Your task to perform on an android device: set the timer Image 0: 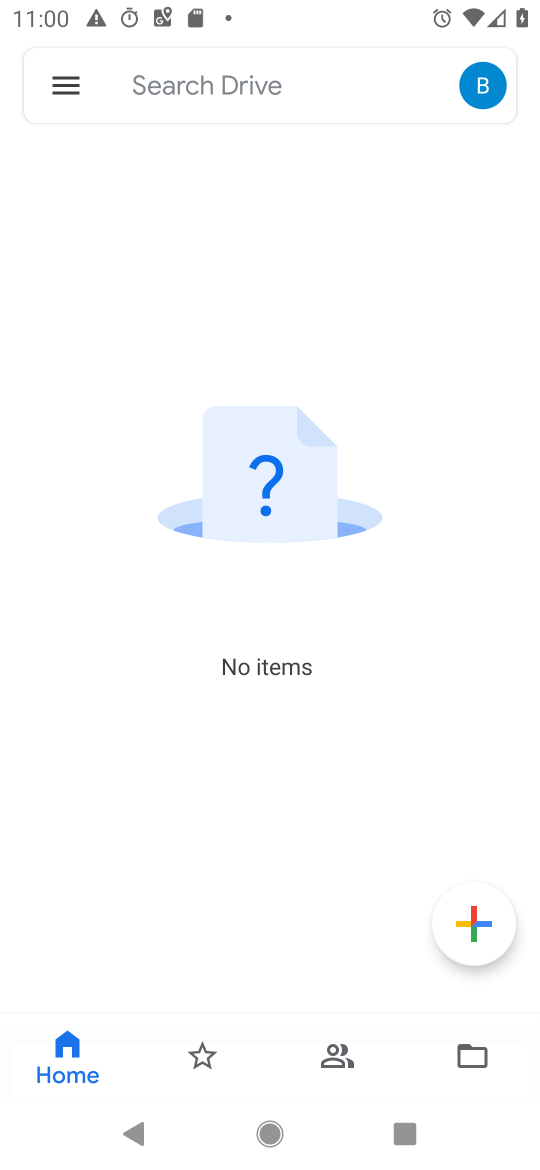
Step 0: press home button
Your task to perform on an android device: set the timer Image 1: 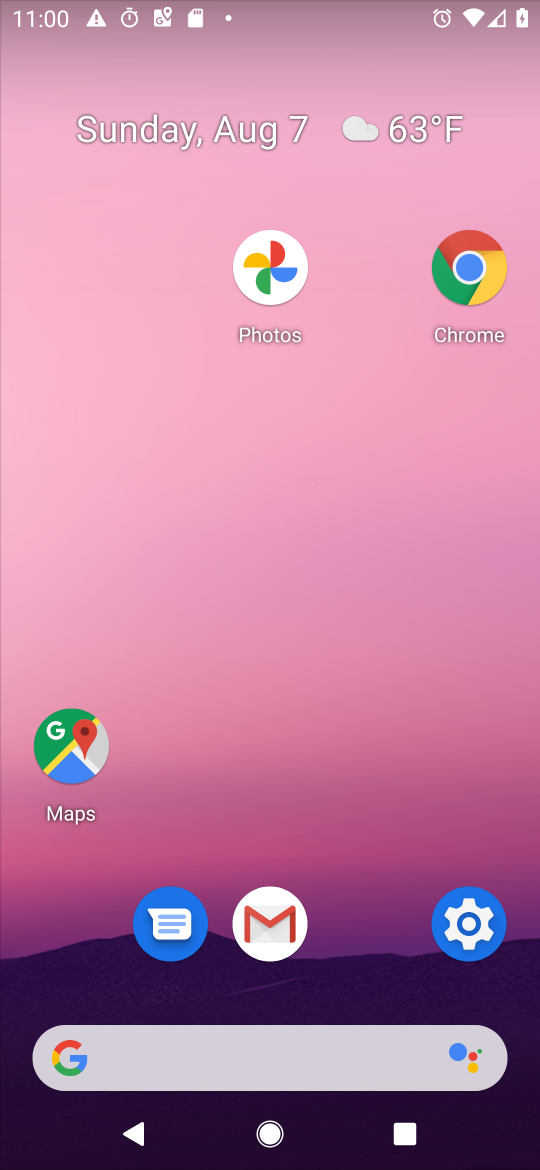
Step 1: click (464, 915)
Your task to perform on an android device: set the timer Image 2: 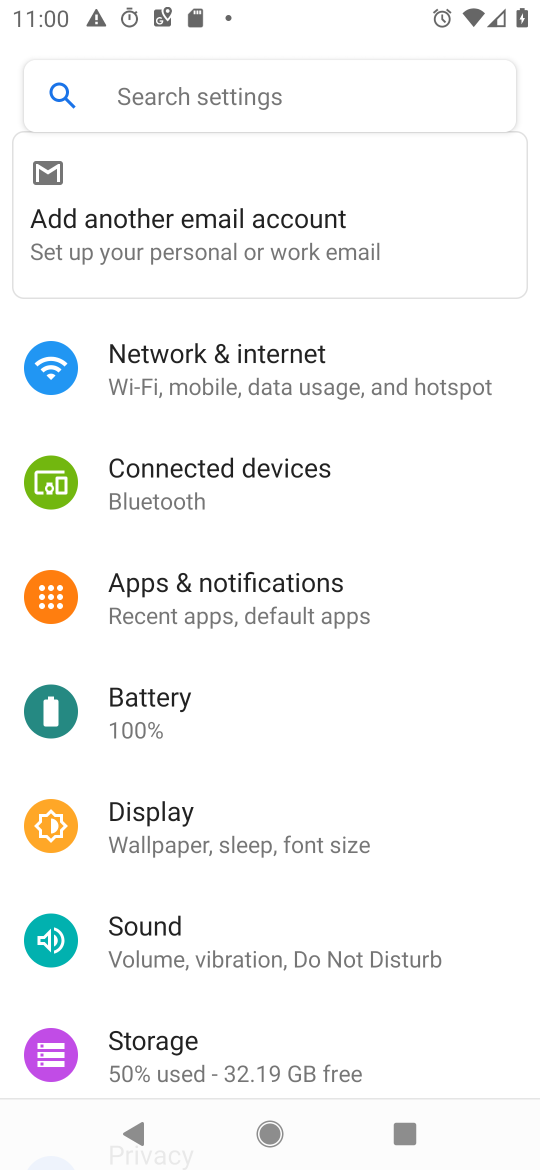
Step 2: press home button
Your task to perform on an android device: set the timer Image 3: 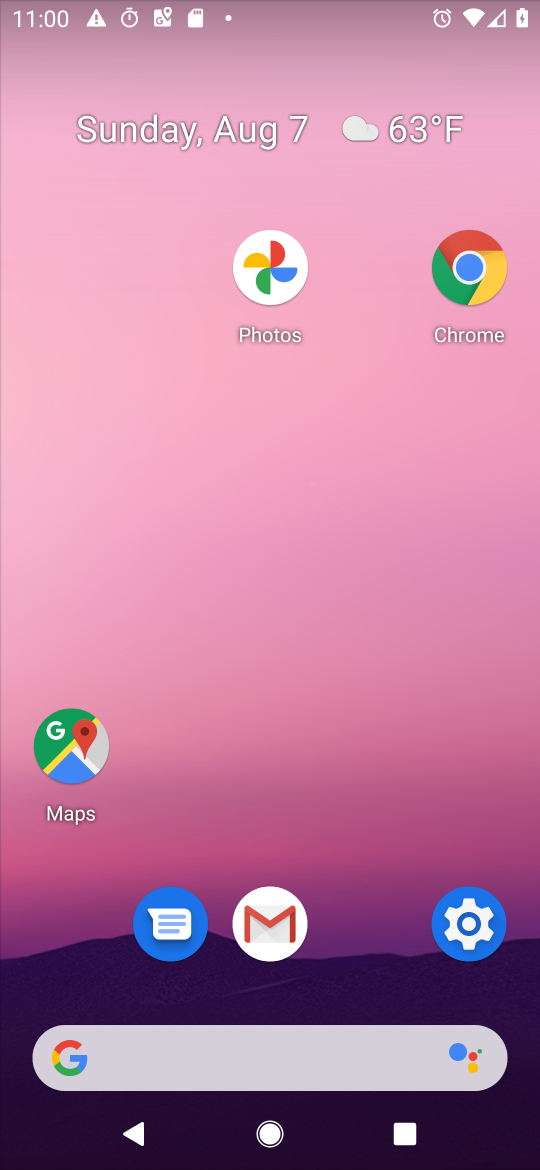
Step 3: drag from (310, 1094) to (265, 455)
Your task to perform on an android device: set the timer Image 4: 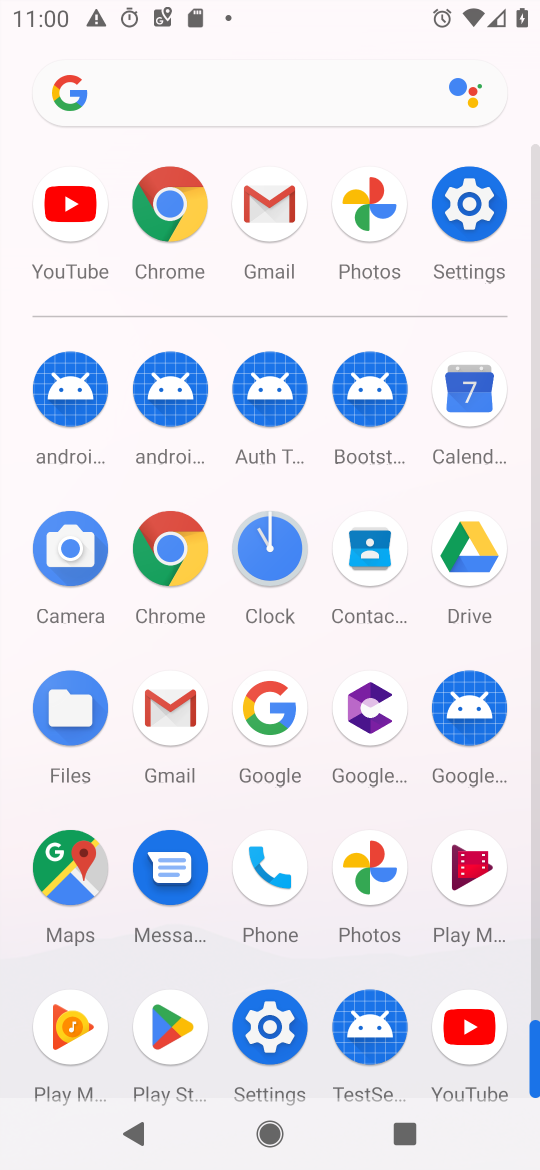
Step 4: click (261, 555)
Your task to perform on an android device: set the timer Image 5: 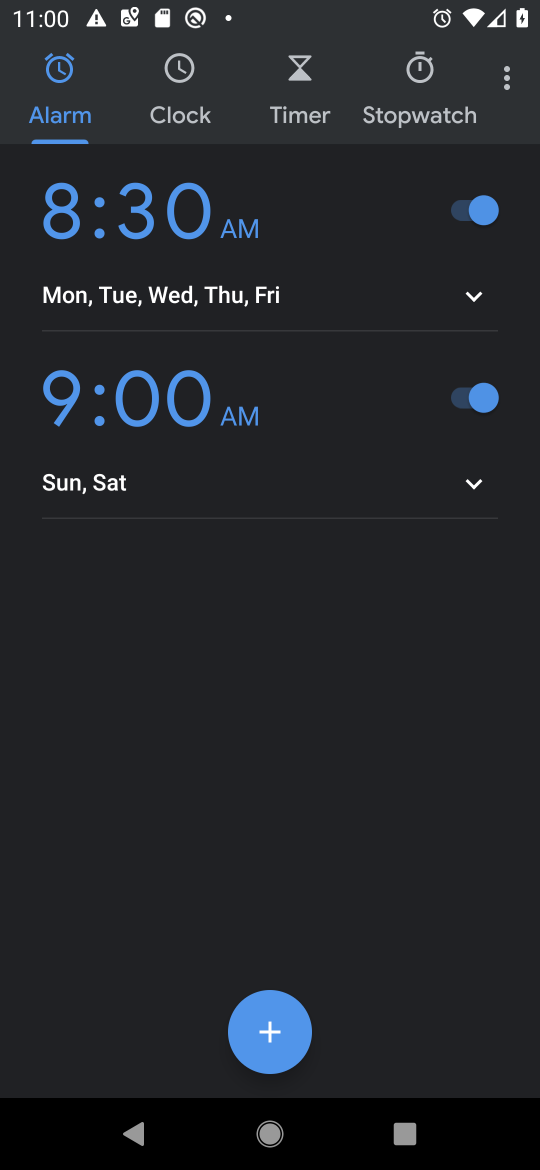
Step 5: click (486, 95)
Your task to perform on an android device: set the timer Image 6: 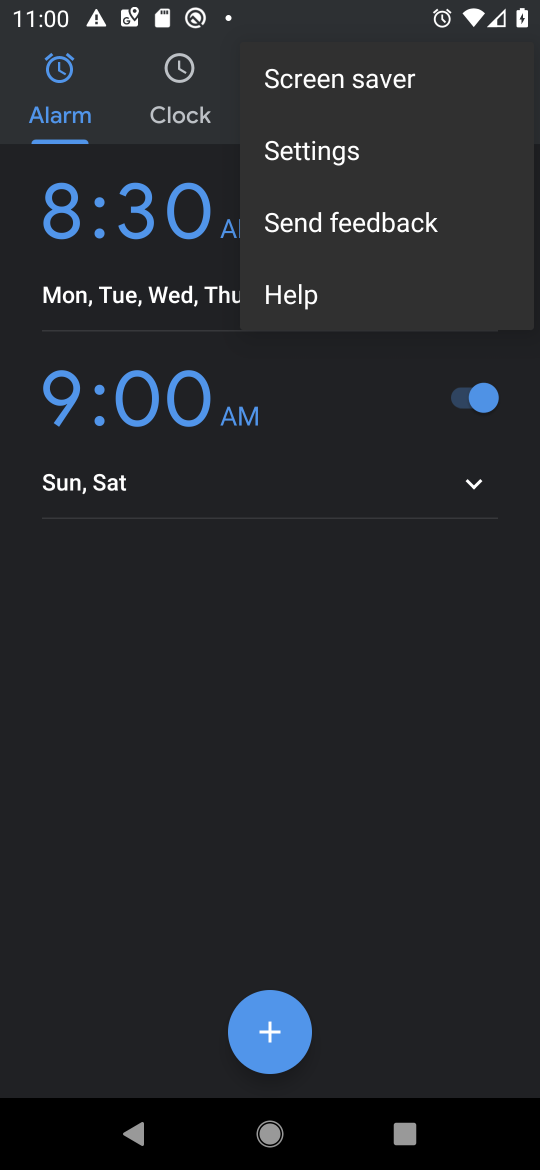
Step 6: click (333, 163)
Your task to perform on an android device: set the timer Image 7: 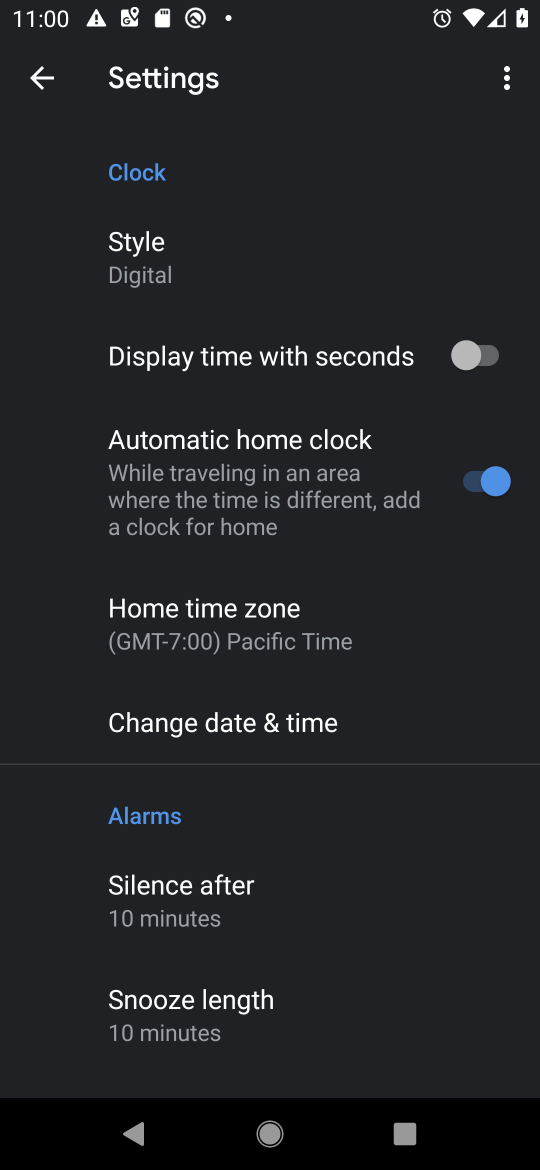
Step 7: drag from (303, 884) to (351, 31)
Your task to perform on an android device: set the timer Image 8: 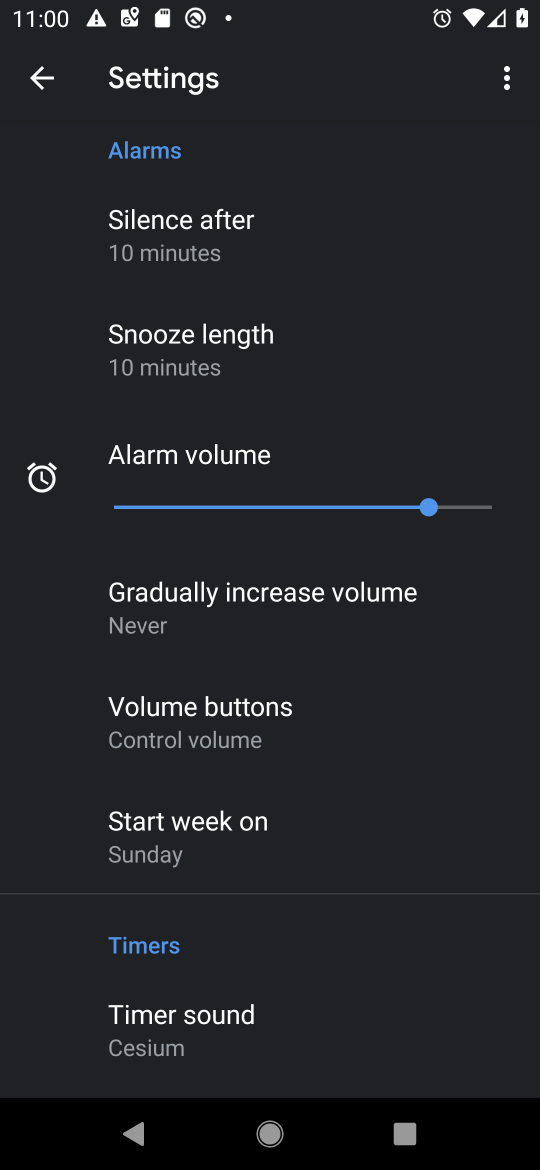
Step 8: click (217, 1006)
Your task to perform on an android device: set the timer Image 9: 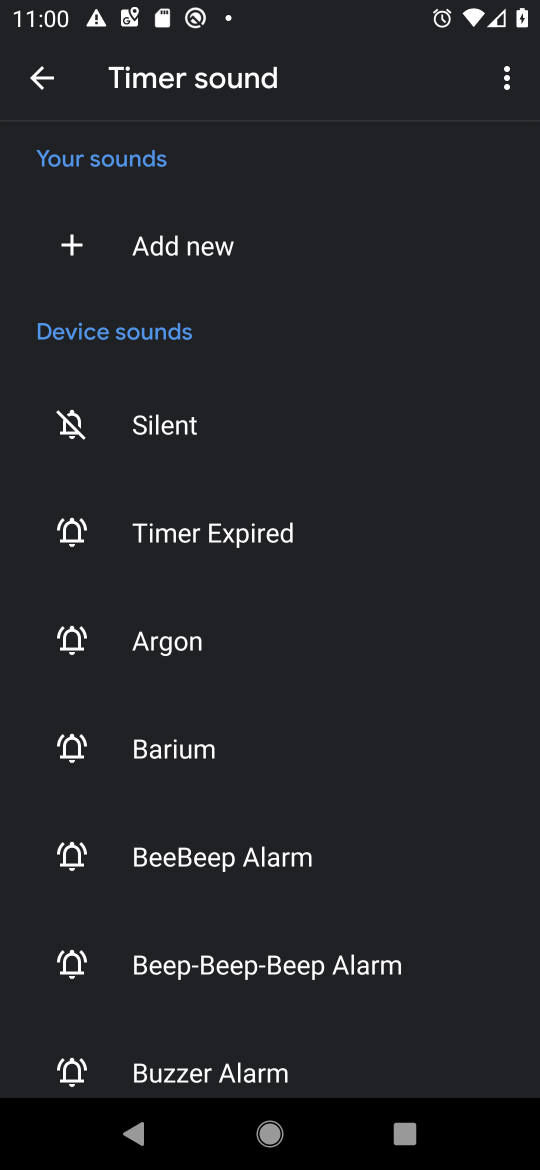
Step 9: drag from (250, 930) to (269, 618)
Your task to perform on an android device: set the timer Image 10: 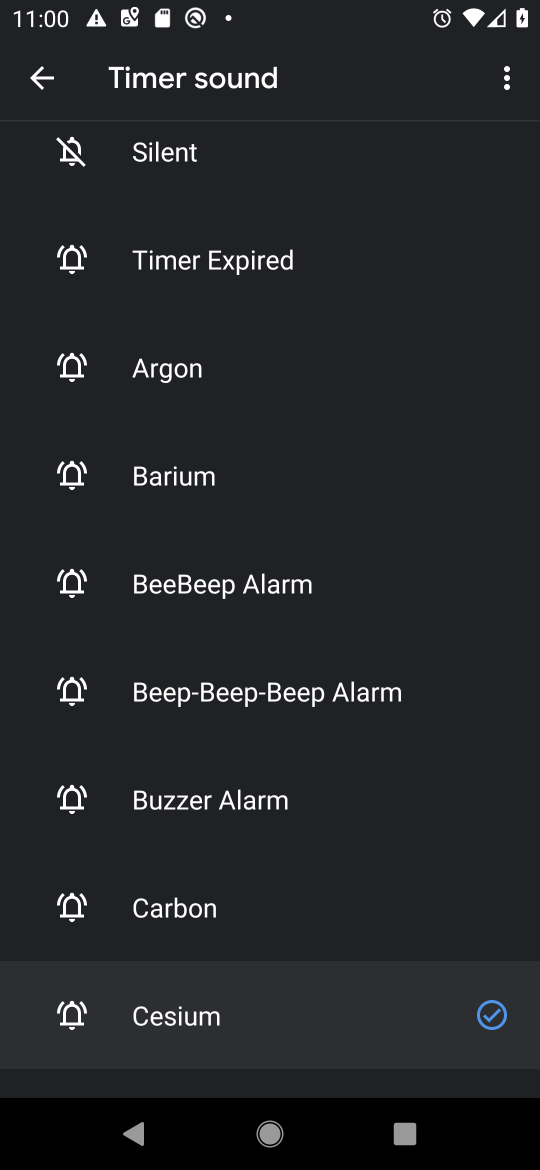
Step 10: click (213, 915)
Your task to perform on an android device: set the timer Image 11: 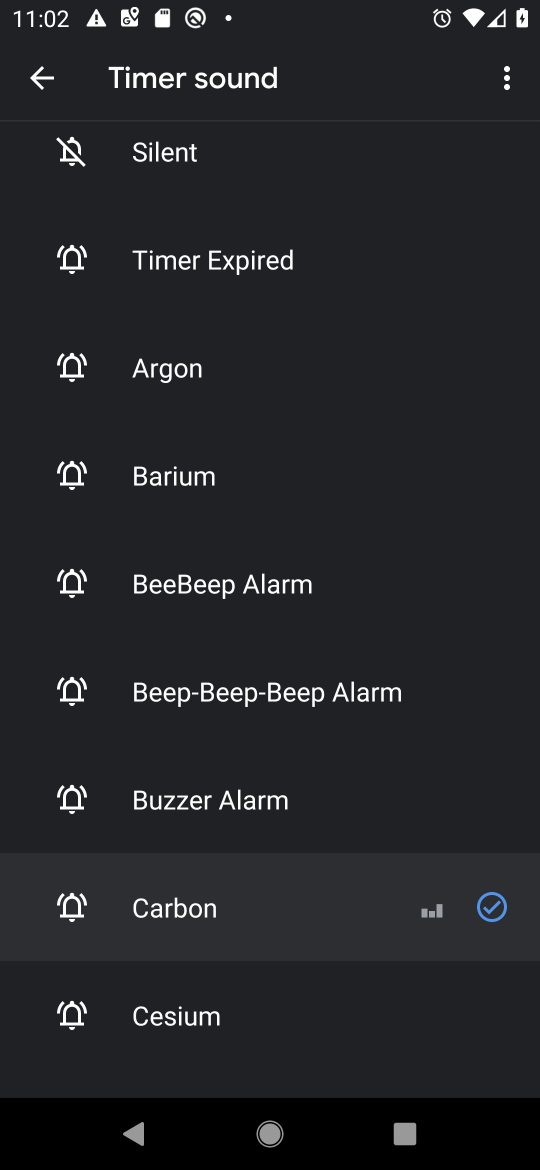
Step 11: task complete